Your task to perform on an android device: open sync settings in chrome Image 0: 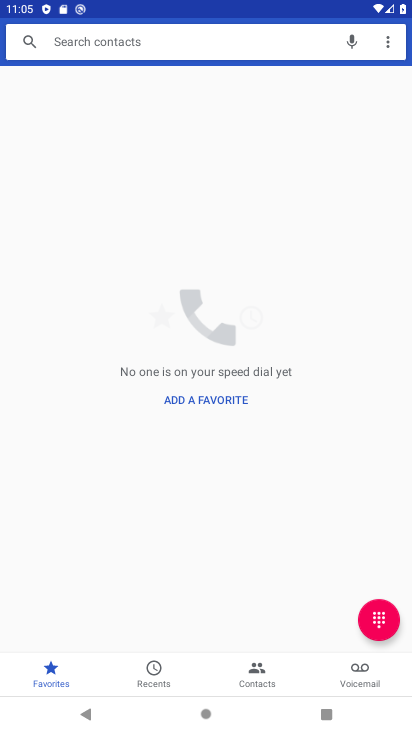
Step 0: press home button
Your task to perform on an android device: open sync settings in chrome Image 1: 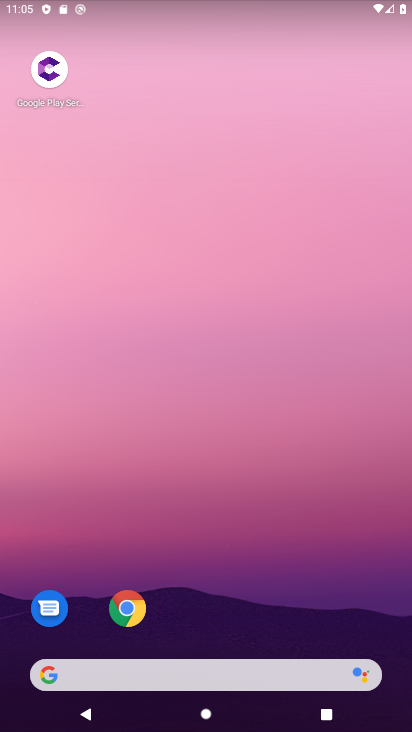
Step 1: click (122, 616)
Your task to perform on an android device: open sync settings in chrome Image 2: 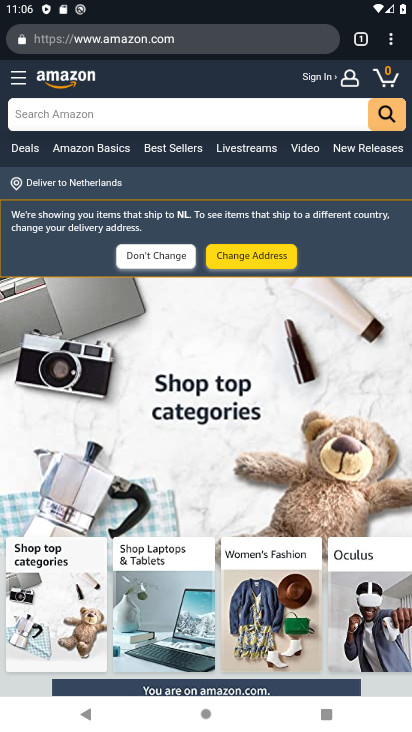
Step 2: click (394, 46)
Your task to perform on an android device: open sync settings in chrome Image 3: 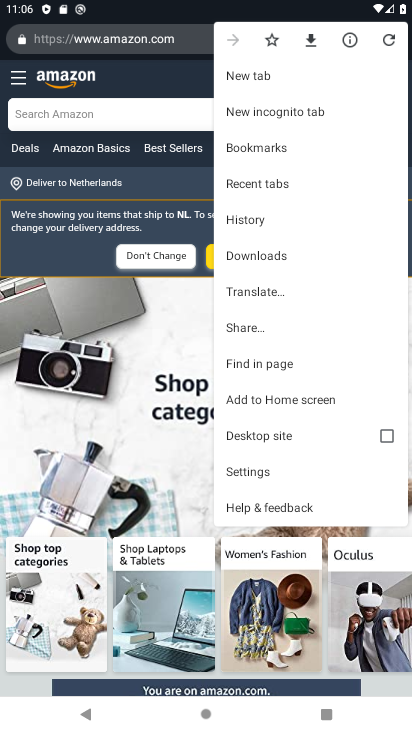
Step 3: click (241, 467)
Your task to perform on an android device: open sync settings in chrome Image 4: 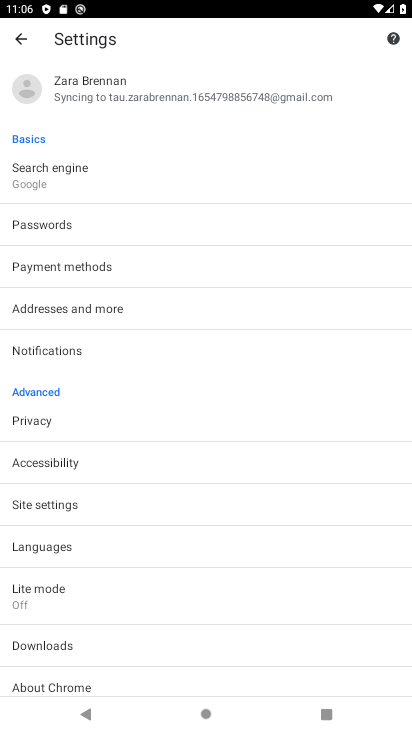
Step 4: click (46, 509)
Your task to perform on an android device: open sync settings in chrome Image 5: 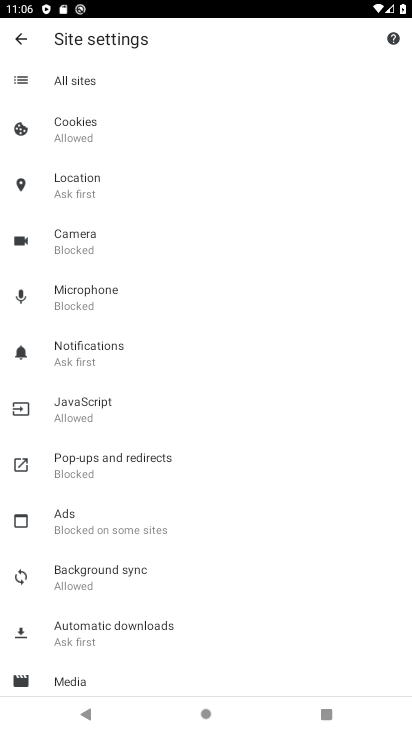
Step 5: click (74, 577)
Your task to perform on an android device: open sync settings in chrome Image 6: 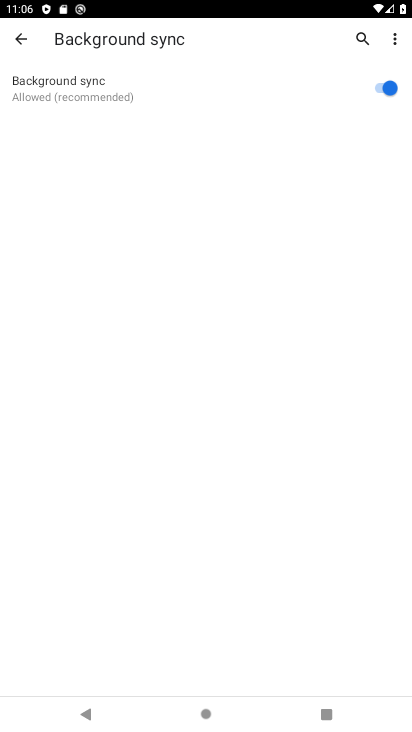
Step 6: task complete